Your task to perform on an android device: Go to location settings Image 0: 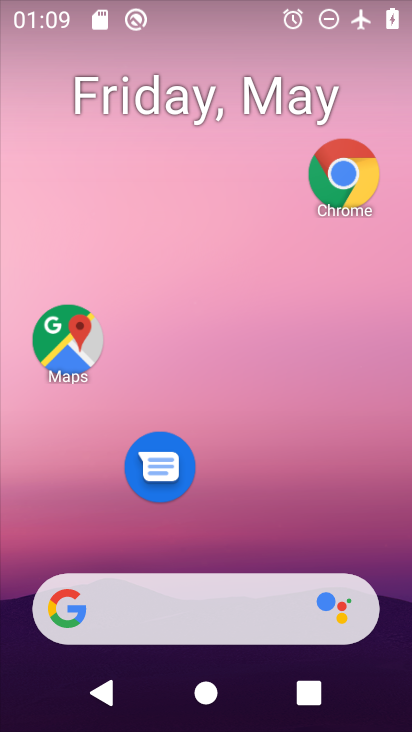
Step 0: drag from (233, 520) to (293, 247)
Your task to perform on an android device: Go to location settings Image 1: 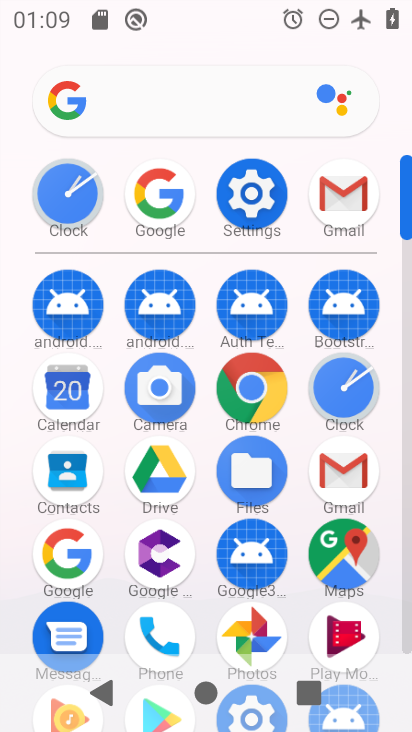
Step 1: click (238, 197)
Your task to perform on an android device: Go to location settings Image 2: 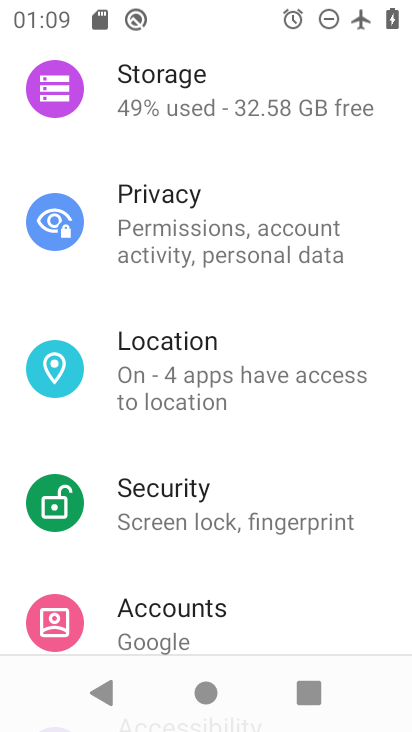
Step 2: click (172, 376)
Your task to perform on an android device: Go to location settings Image 3: 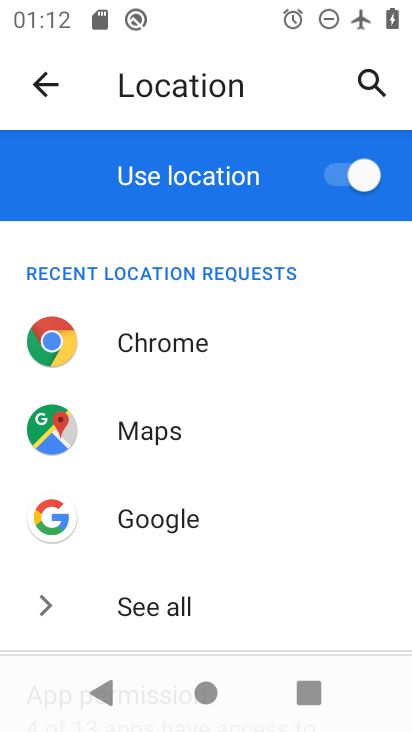
Step 3: task complete